Your task to perform on an android device: Open Youtube and go to "Your channel" Image 0: 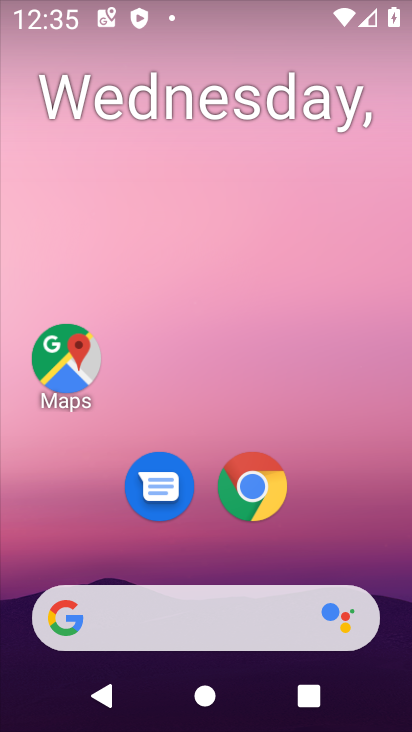
Step 0: click (360, 133)
Your task to perform on an android device: Open Youtube and go to "Your channel" Image 1: 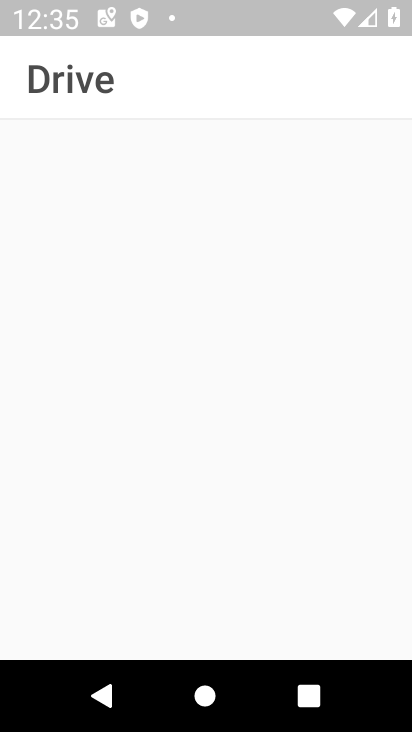
Step 1: press home button
Your task to perform on an android device: Open Youtube and go to "Your channel" Image 2: 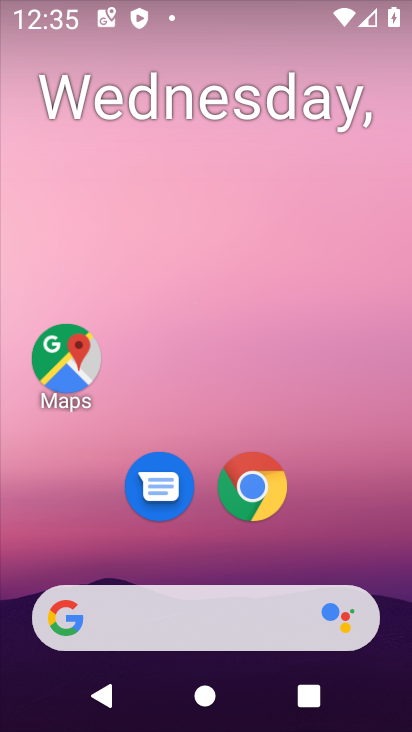
Step 2: drag from (364, 510) to (382, 99)
Your task to perform on an android device: Open Youtube and go to "Your channel" Image 3: 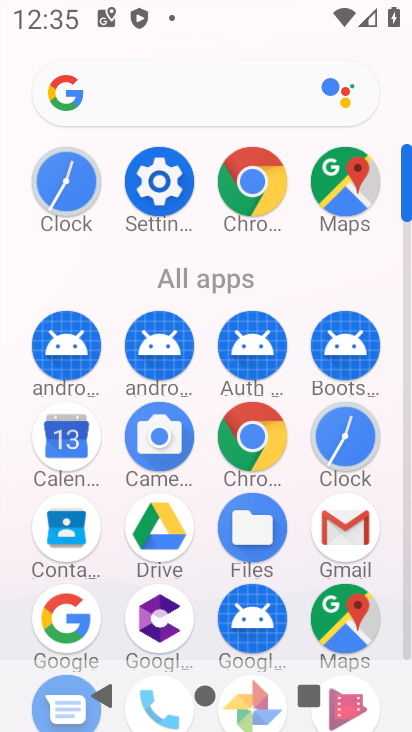
Step 3: drag from (381, 566) to (400, 224)
Your task to perform on an android device: Open Youtube and go to "Your channel" Image 4: 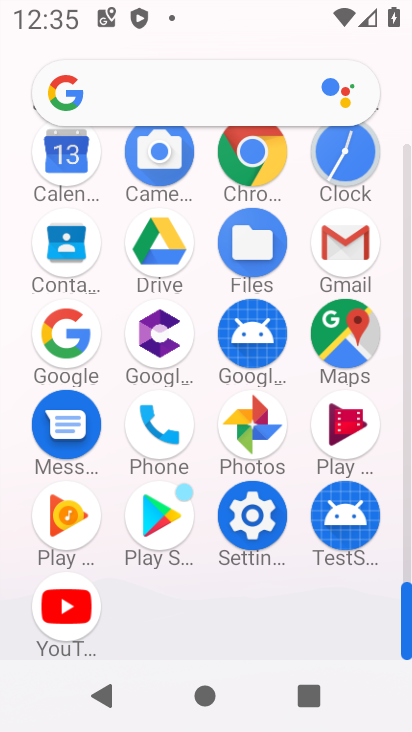
Step 4: click (57, 610)
Your task to perform on an android device: Open Youtube and go to "Your channel" Image 5: 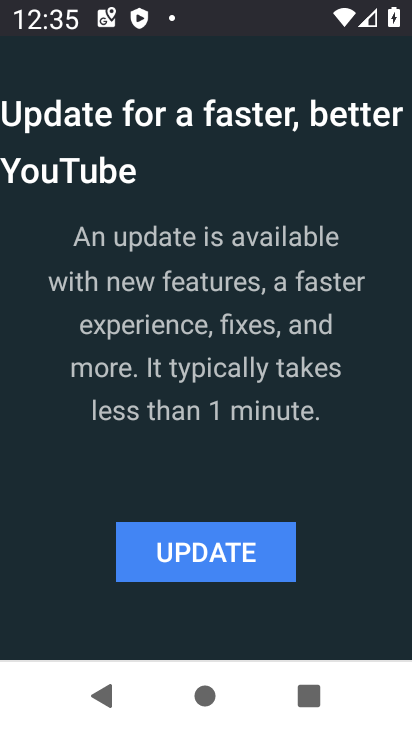
Step 5: click (245, 543)
Your task to perform on an android device: Open Youtube and go to "Your channel" Image 6: 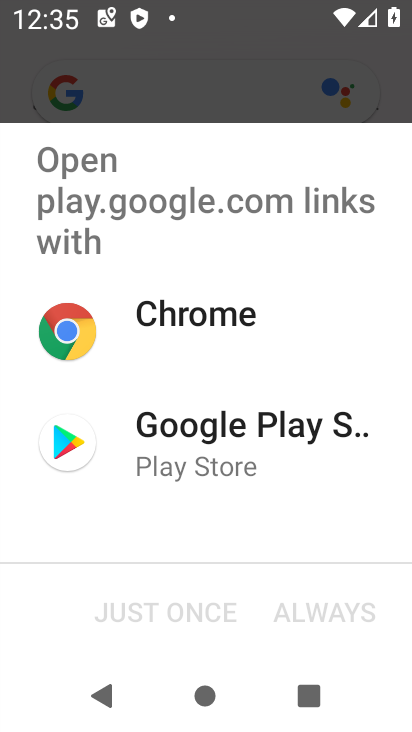
Step 6: click (191, 467)
Your task to perform on an android device: Open Youtube and go to "Your channel" Image 7: 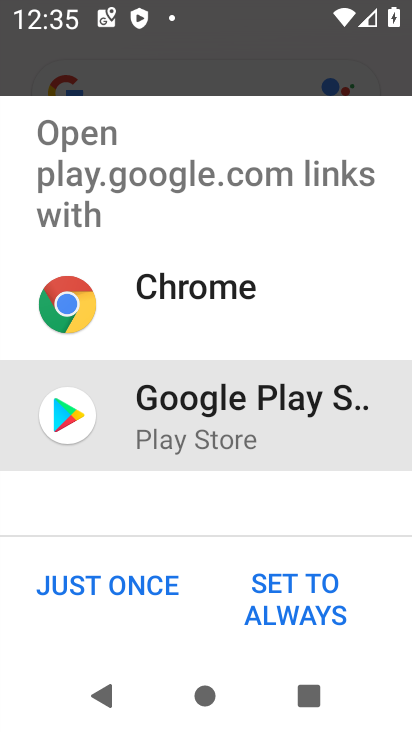
Step 7: click (129, 583)
Your task to perform on an android device: Open Youtube and go to "Your channel" Image 8: 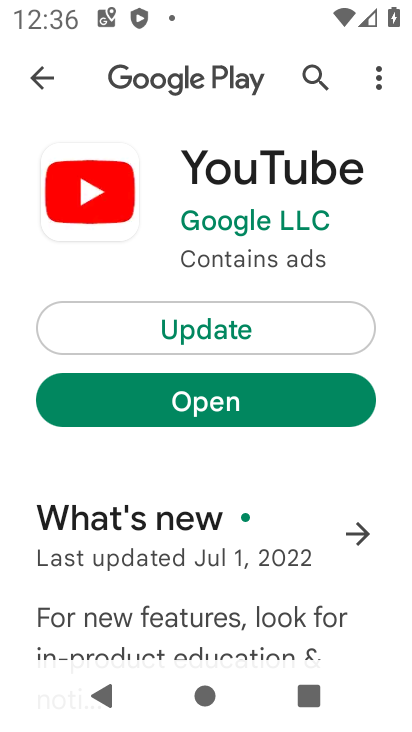
Step 8: click (229, 327)
Your task to perform on an android device: Open Youtube and go to "Your channel" Image 9: 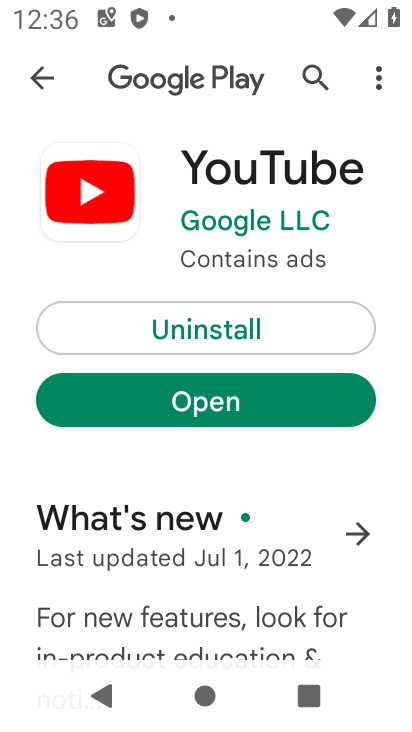
Step 9: click (268, 399)
Your task to perform on an android device: Open Youtube and go to "Your channel" Image 10: 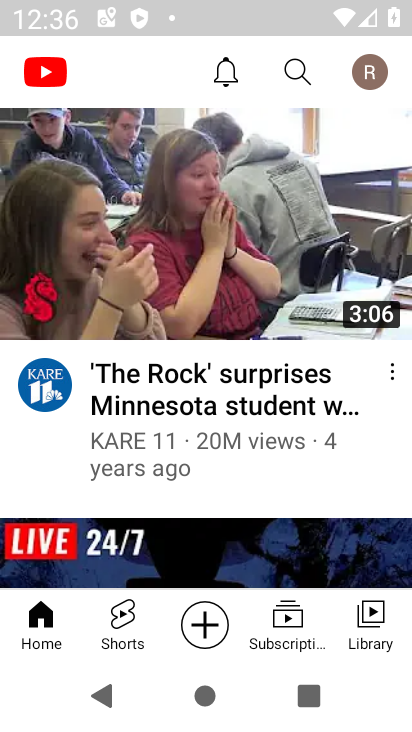
Step 10: click (365, 68)
Your task to perform on an android device: Open Youtube and go to "Your channel" Image 11: 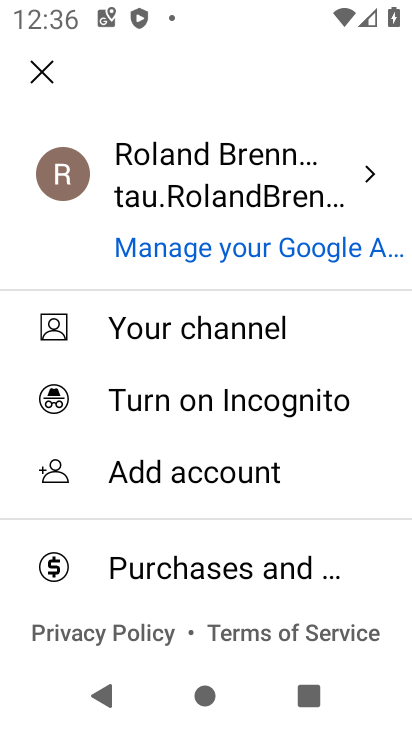
Step 11: click (295, 336)
Your task to perform on an android device: Open Youtube and go to "Your channel" Image 12: 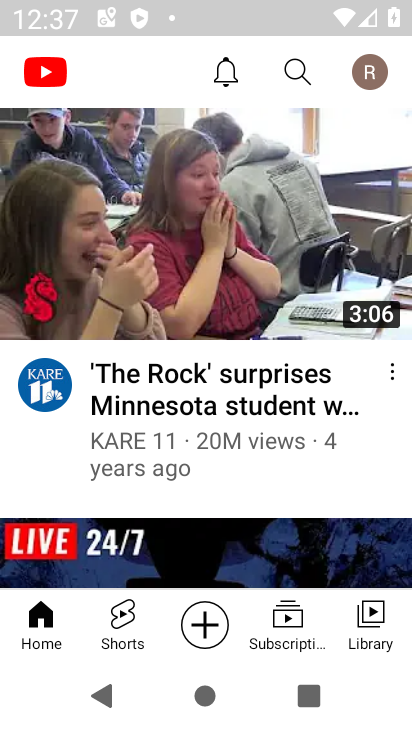
Step 12: task complete